Your task to perform on an android device: add a contact in the contacts app Image 0: 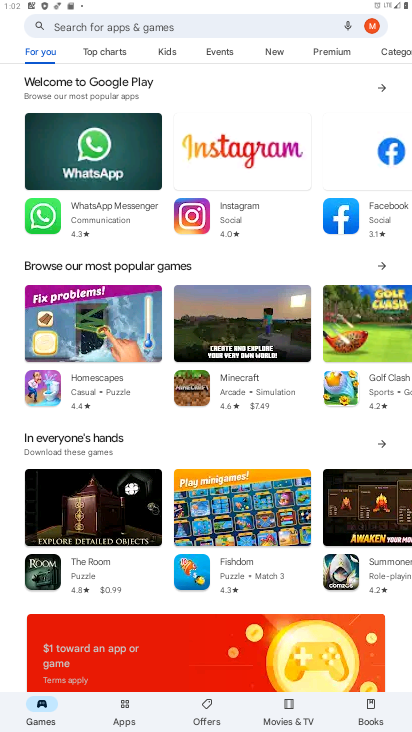
Step 0: press home button
Your task to perform on an android device: add a contact in the contacts app Image 1: 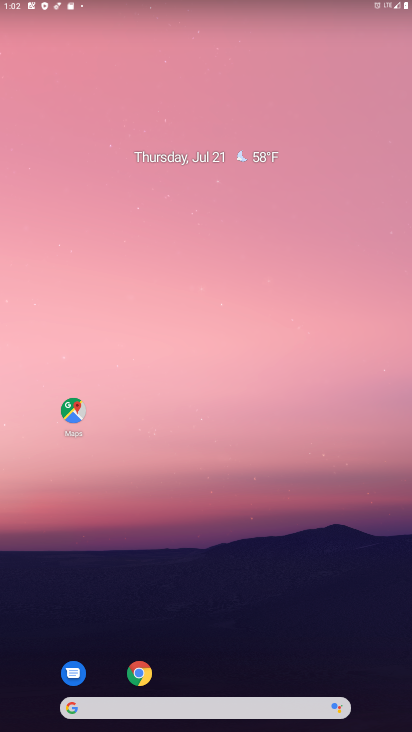
Step 1: drag from (254, 631) to (286, 175)
Your task to perform on an android device: add a contact in the contacts app Image 2: 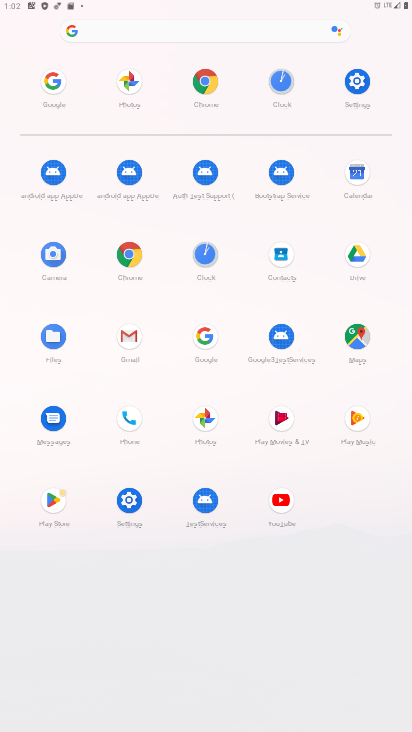
Step 2: click (134, 416)
Your task to perform on an android device: add a contact in the contacts app Image 3: 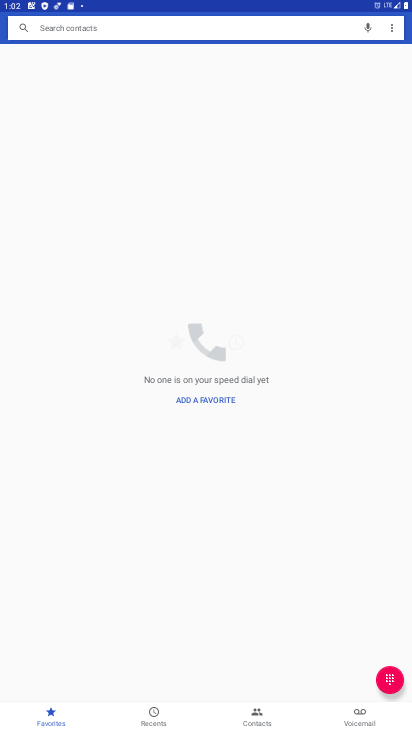
Step 3: click (200, 396)
Your task to perform on an android device: add a contact in the contacts app Image 4: 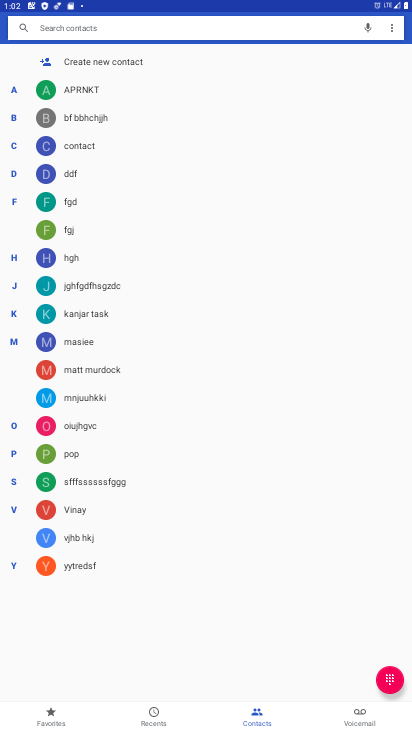
Step 4: click (123, 62)
Your task to perform on an android device: add a contact in the contacts app Image 5: 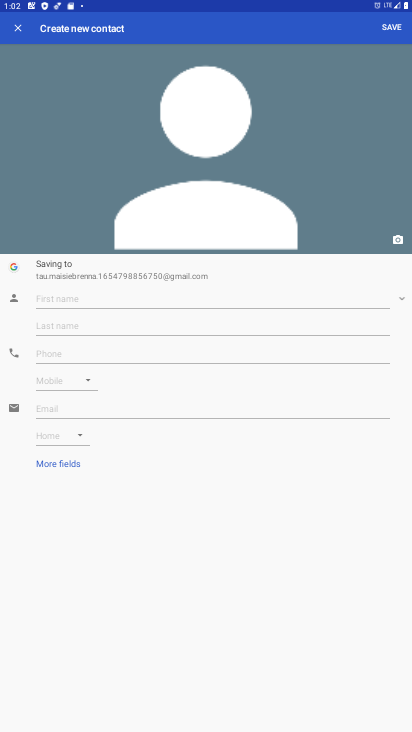
Step 5: click (170, 301)
Your task to perform on an android device: add a contact in the contacts app Image 6: 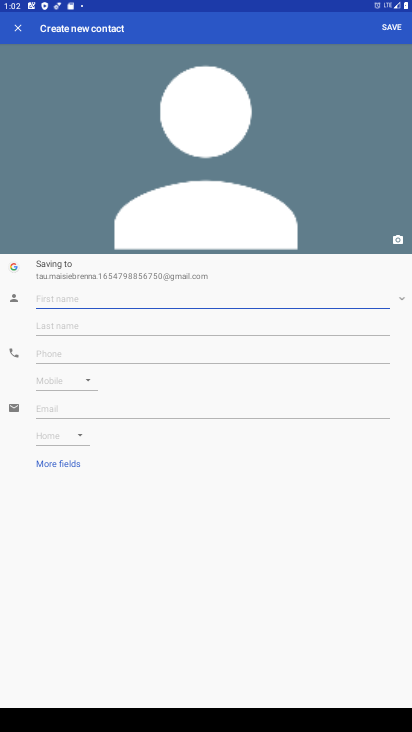
Step 6: type "asdfghjkl "
Your task to perform on an android device: add a contact in the contacts app Image 7: 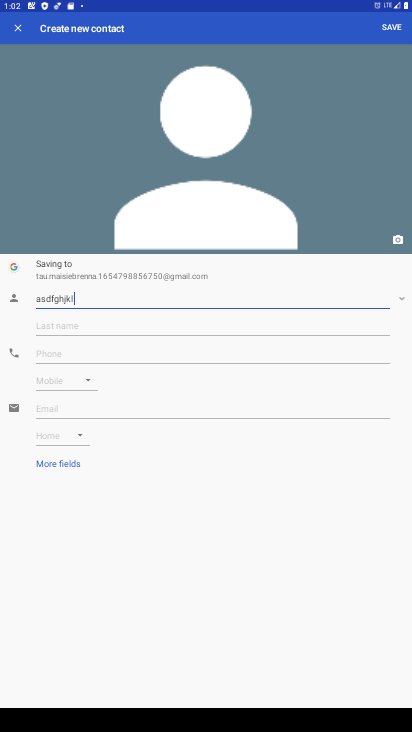
Step 7: click (146, 350)
Your task to perform on an android device: add a contact in the contacts app Image 8: 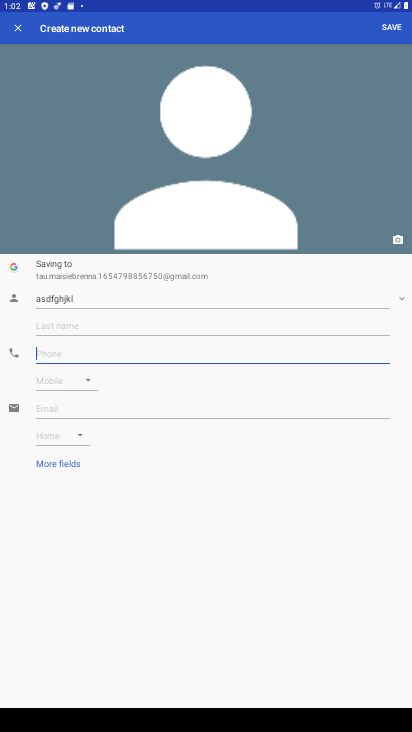
Step 8: type "1234567890 "
Your task to perform on an android device: add a contact in the contacts app Image 9: 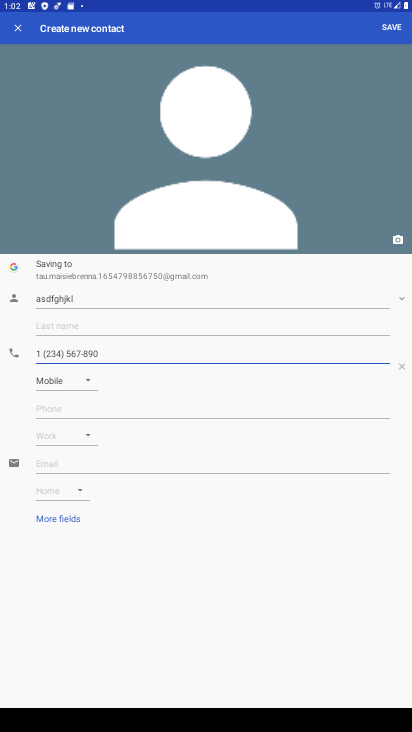
Step 9: click (385, 22)
Your task to perform on an android device: add a contact in the contacts app Image 10: 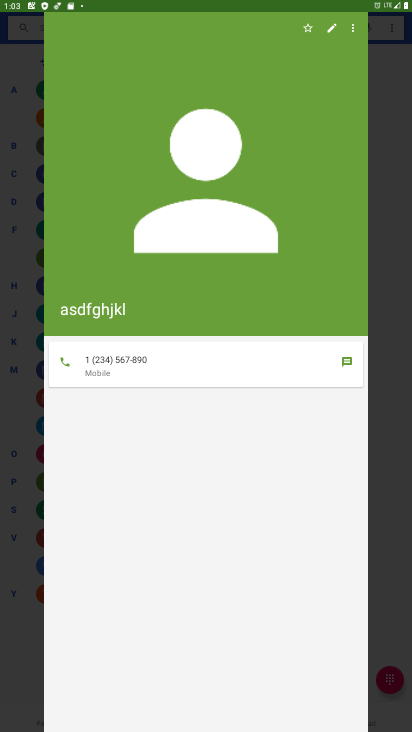
Step 10: task complete